Your task to perform on an android device: What's on the menu at Olive Garden? Image 0: 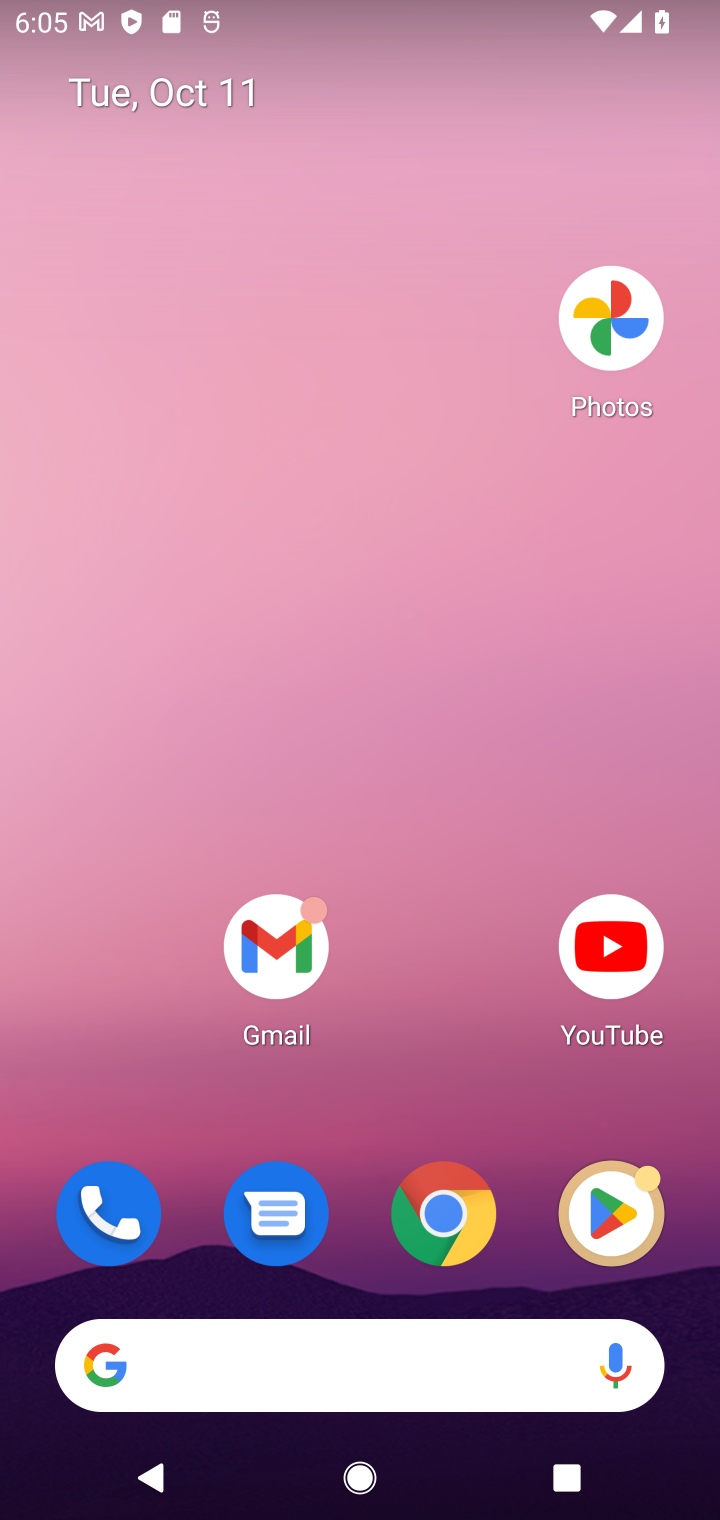
Step 0: click (454, 1240)
Your task to perform on an android device: What's on the menu at Olive Garden? Image 1: 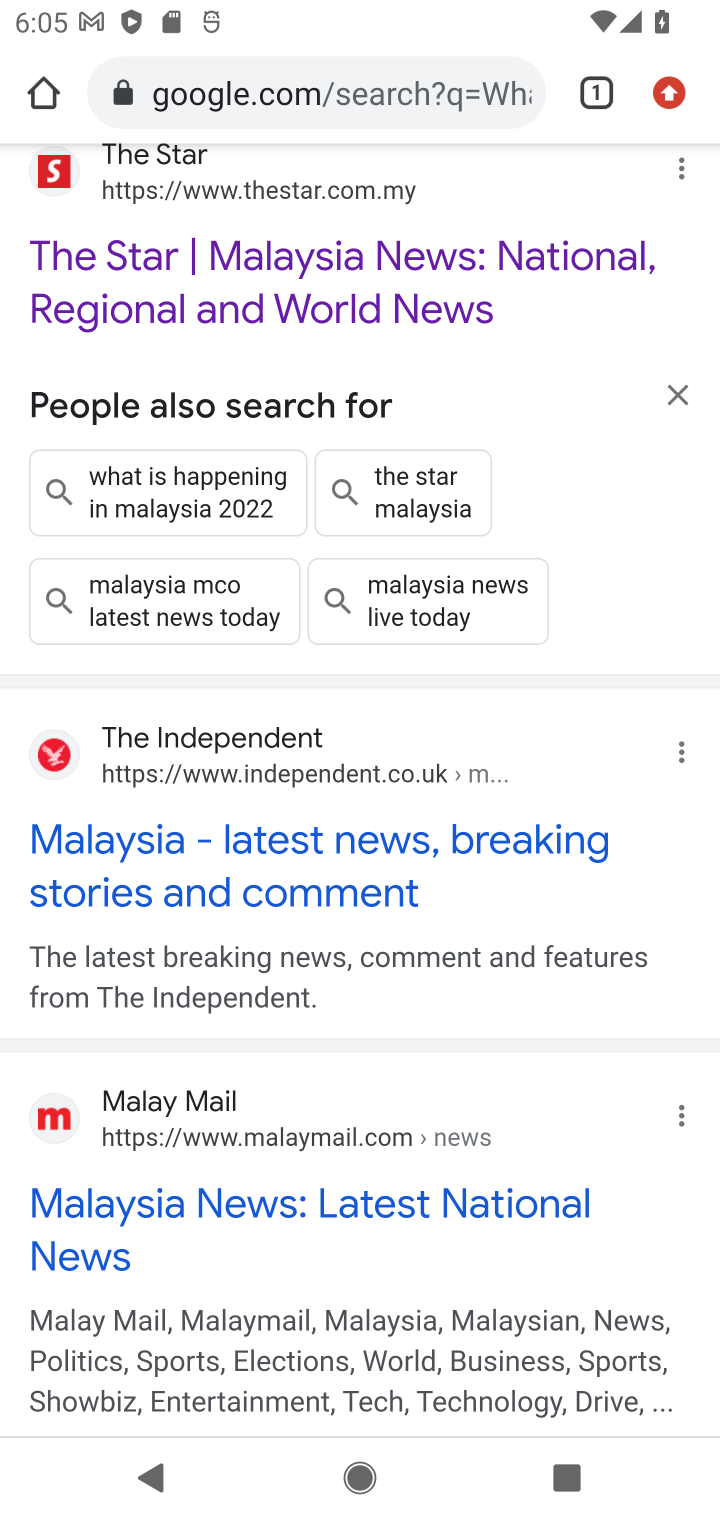
Step 1: click (316, 69)
Your task to perform on an android device: What's on the menu at Olive Garden? Image 2: 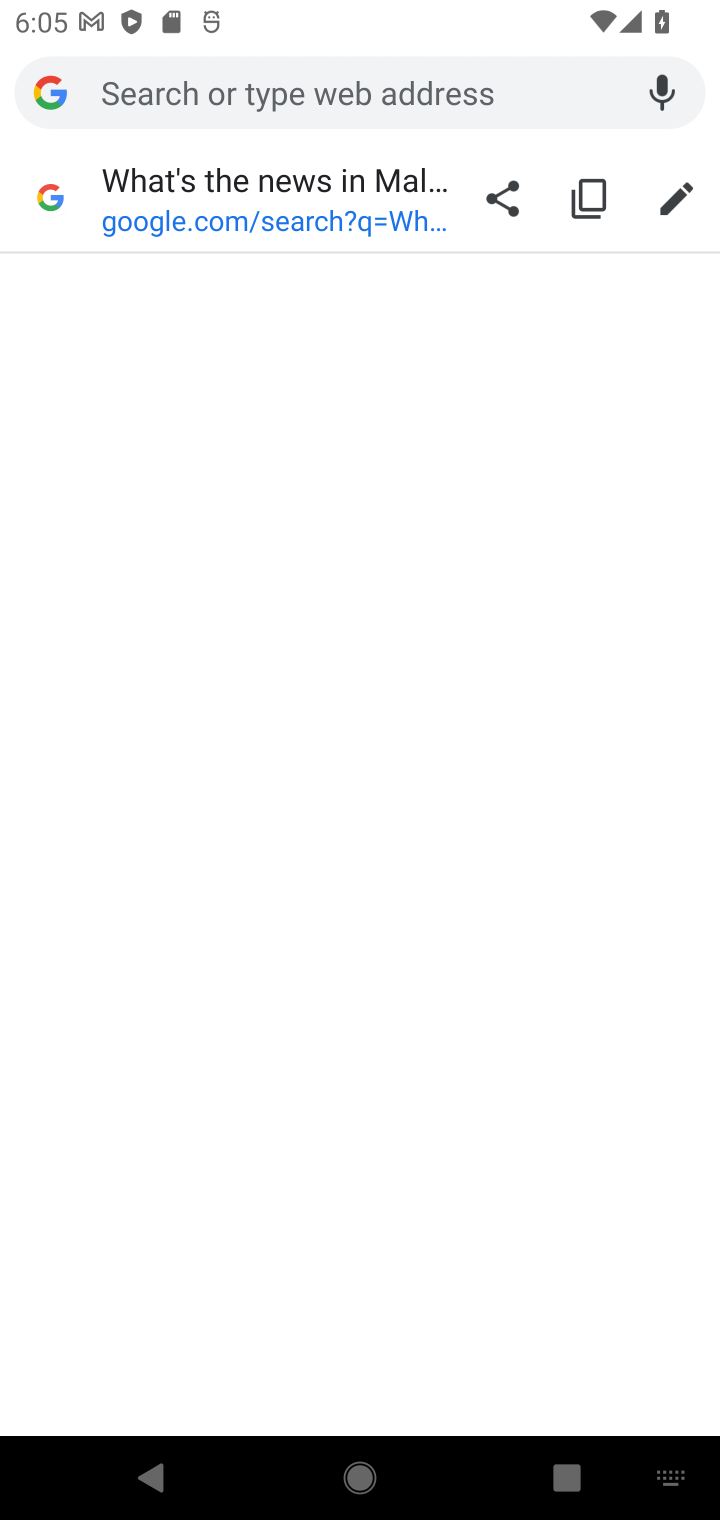
Step 2: type "What's on the menu at Olive Garden?"
Your task to perform on an android device: What's on the menu at Olive Garden? Image 3: 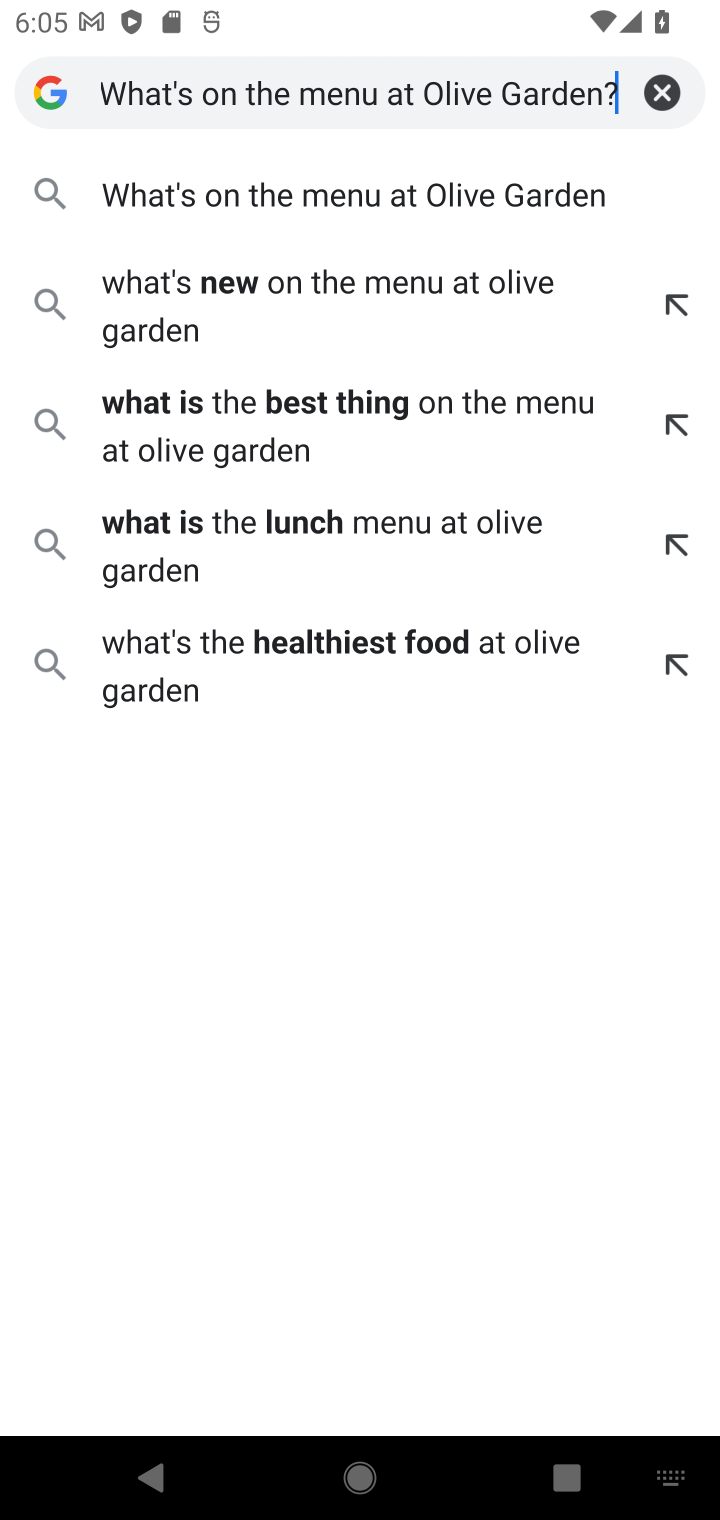
Step 3: type ""
Your task to perform on an android device: What's on the menu at Olive Garden? Image 4: 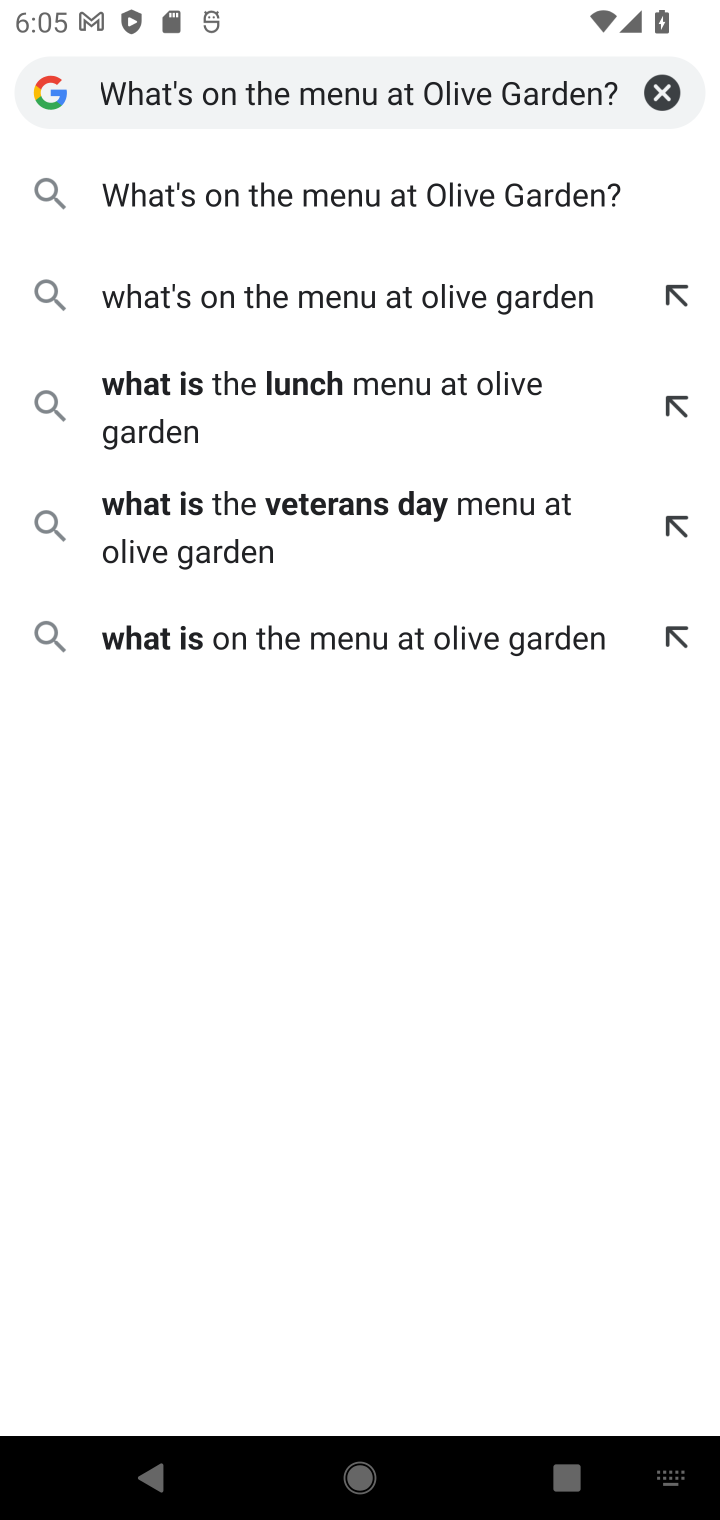
Step 4: click (566, 207)
Your task to perform on an android device: What's on the menu at Olive Garden? Image 5: 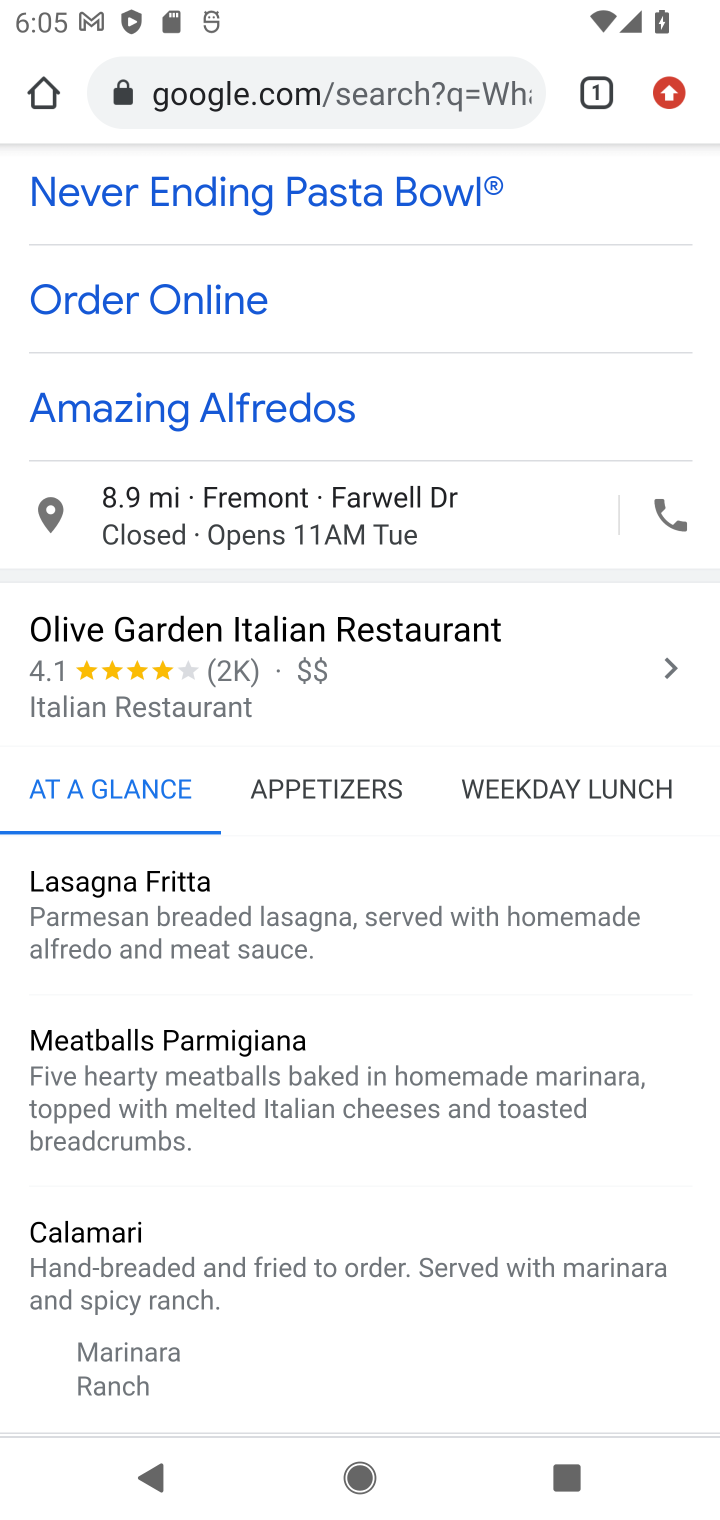
Step 5: drag from (470, 852) to (414, 376)
Your task to perform on an android device: What's on the menu at Olive Garden? Image 6: 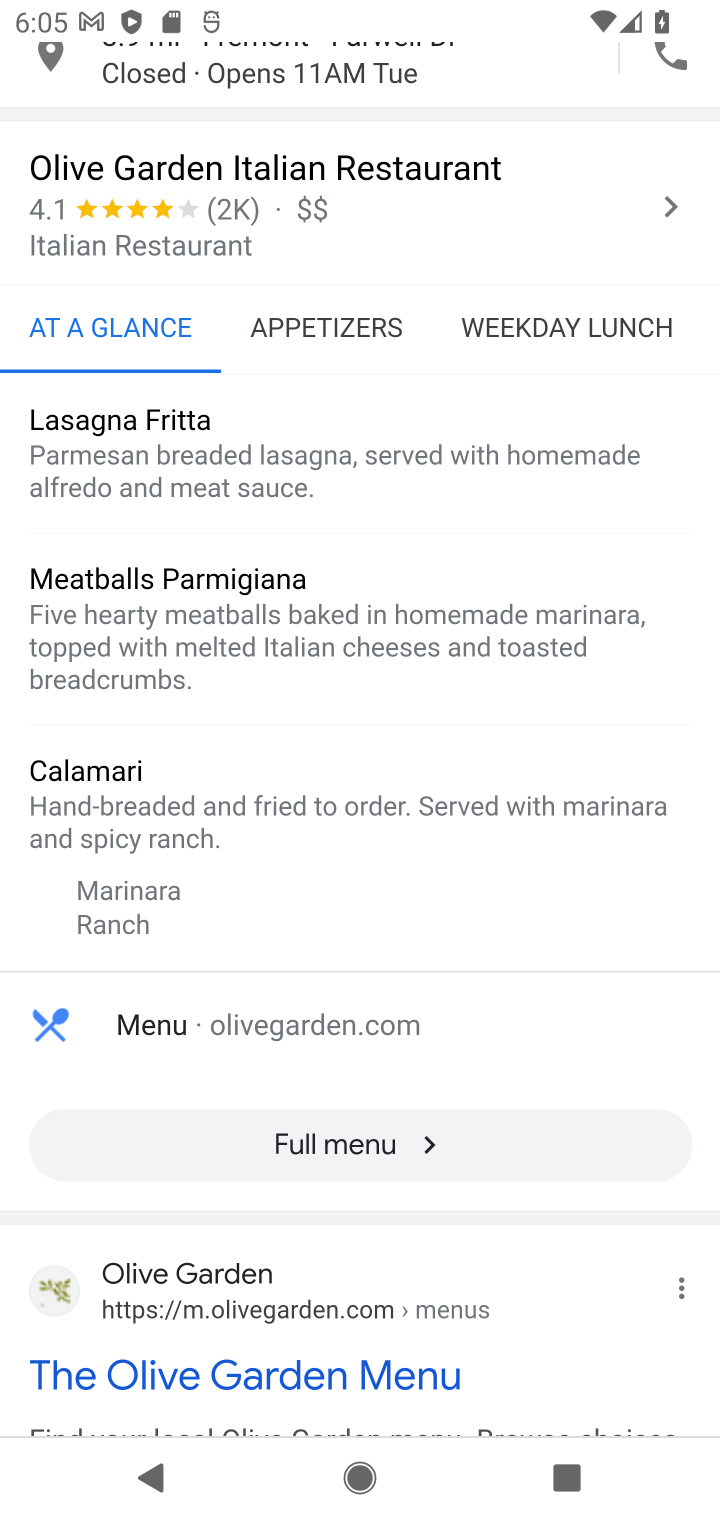
Step 6: click (229, 1352)
Your task to perform on an android device: What's on the menu at Olive Garden? Image 7: 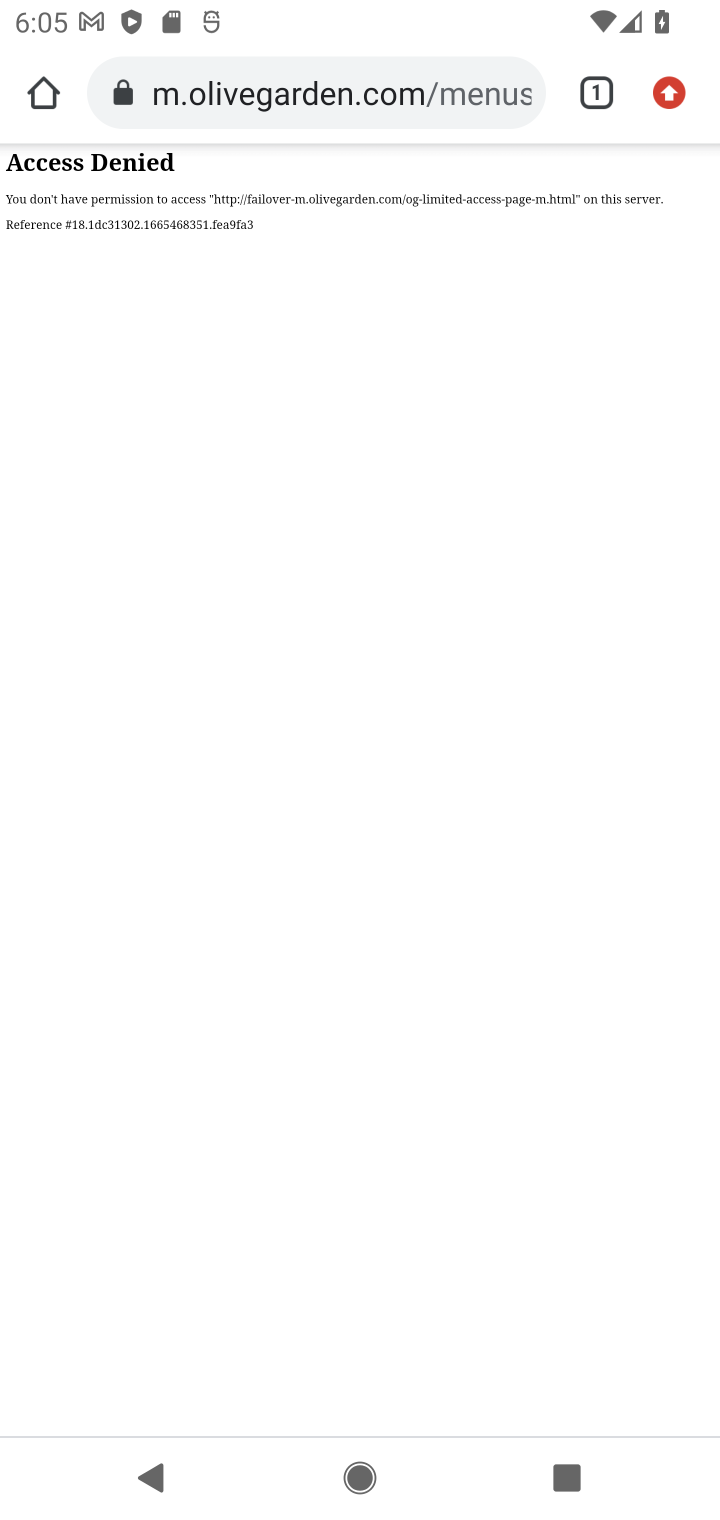
Step 7: press back button
Your task to perform on an android device: What's on the menu at Olive Garden? Image 8: 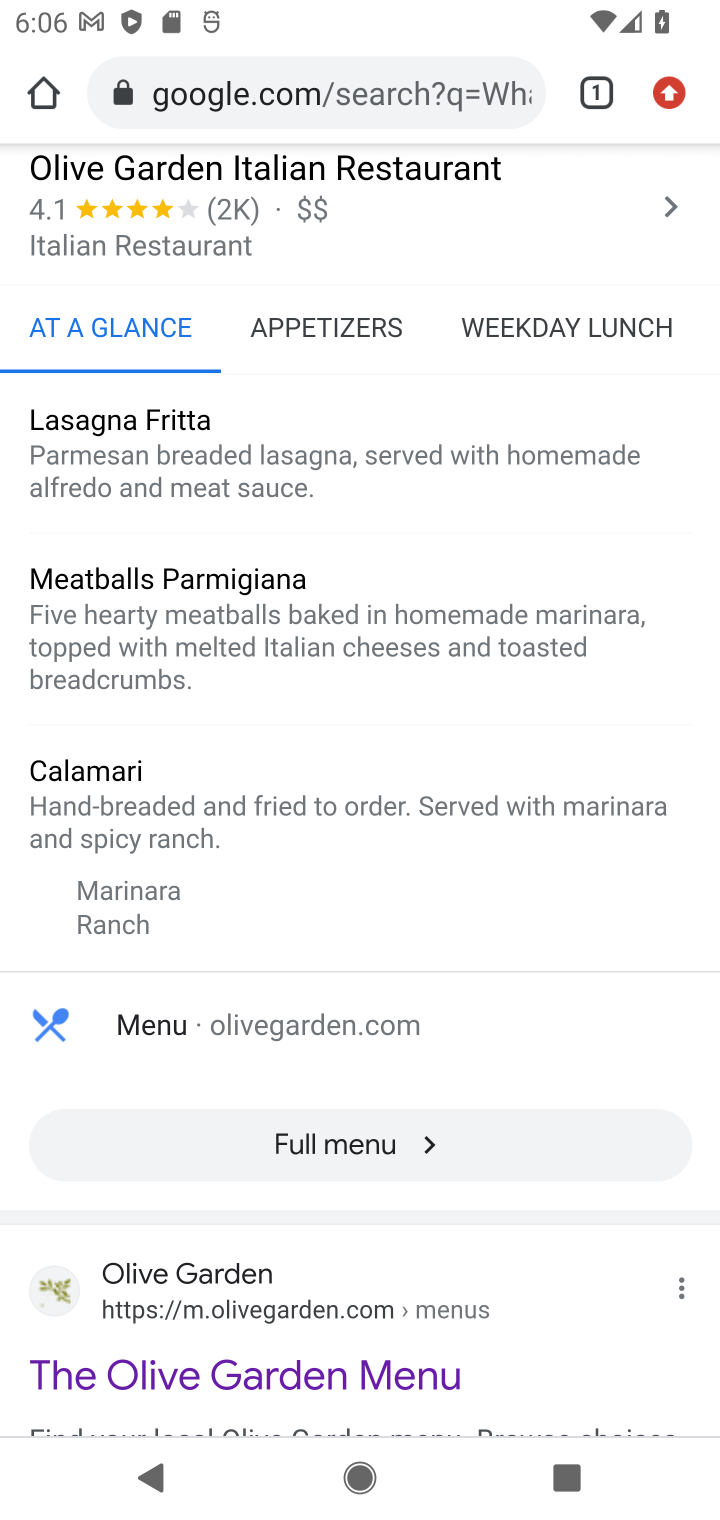
Step 8: drag from (382, 1319) to (465, 205)
Your task to perform on an android device: What's on the menu at Olive Garden? Image 9: 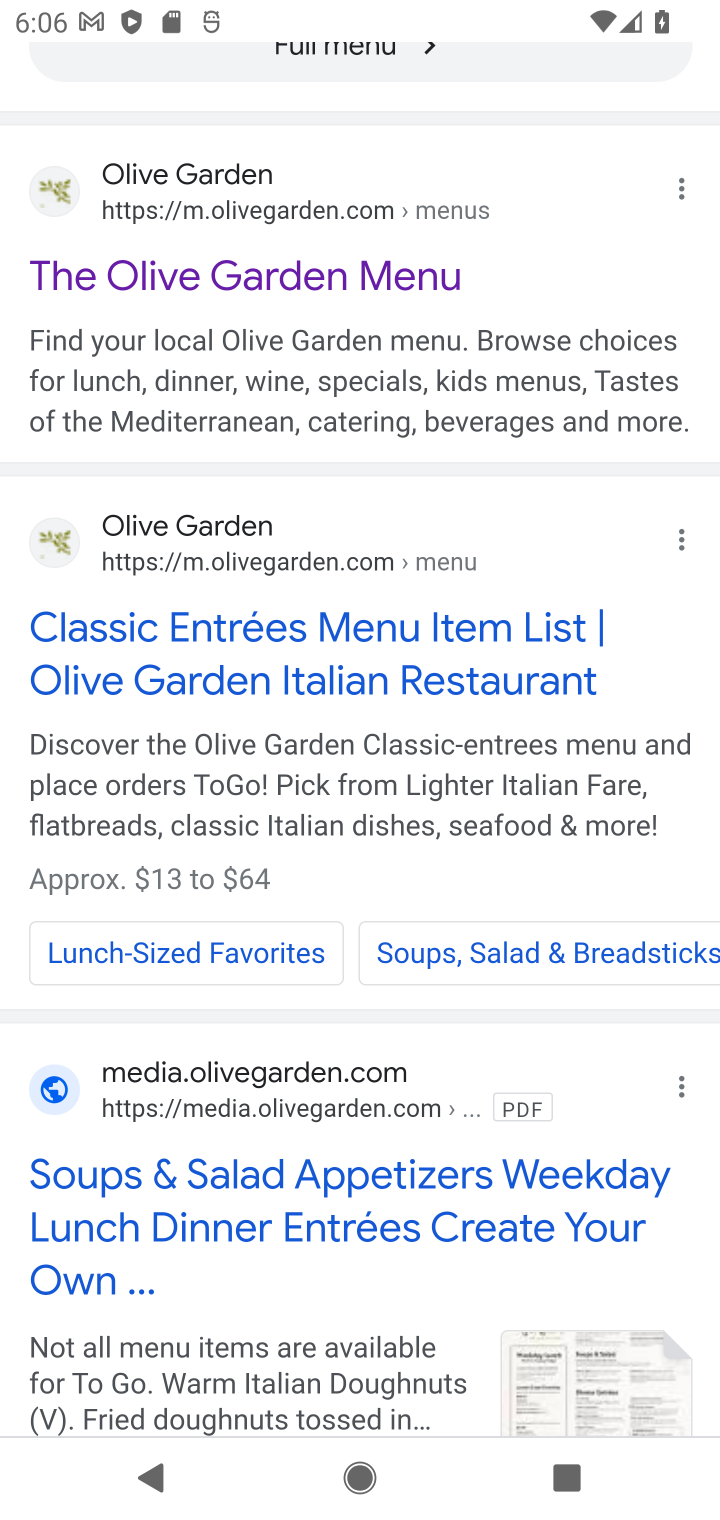
Step 9: click (145, 668)
Your task to perform on an android device: What's on the menu at Olive Garden? Image 10: 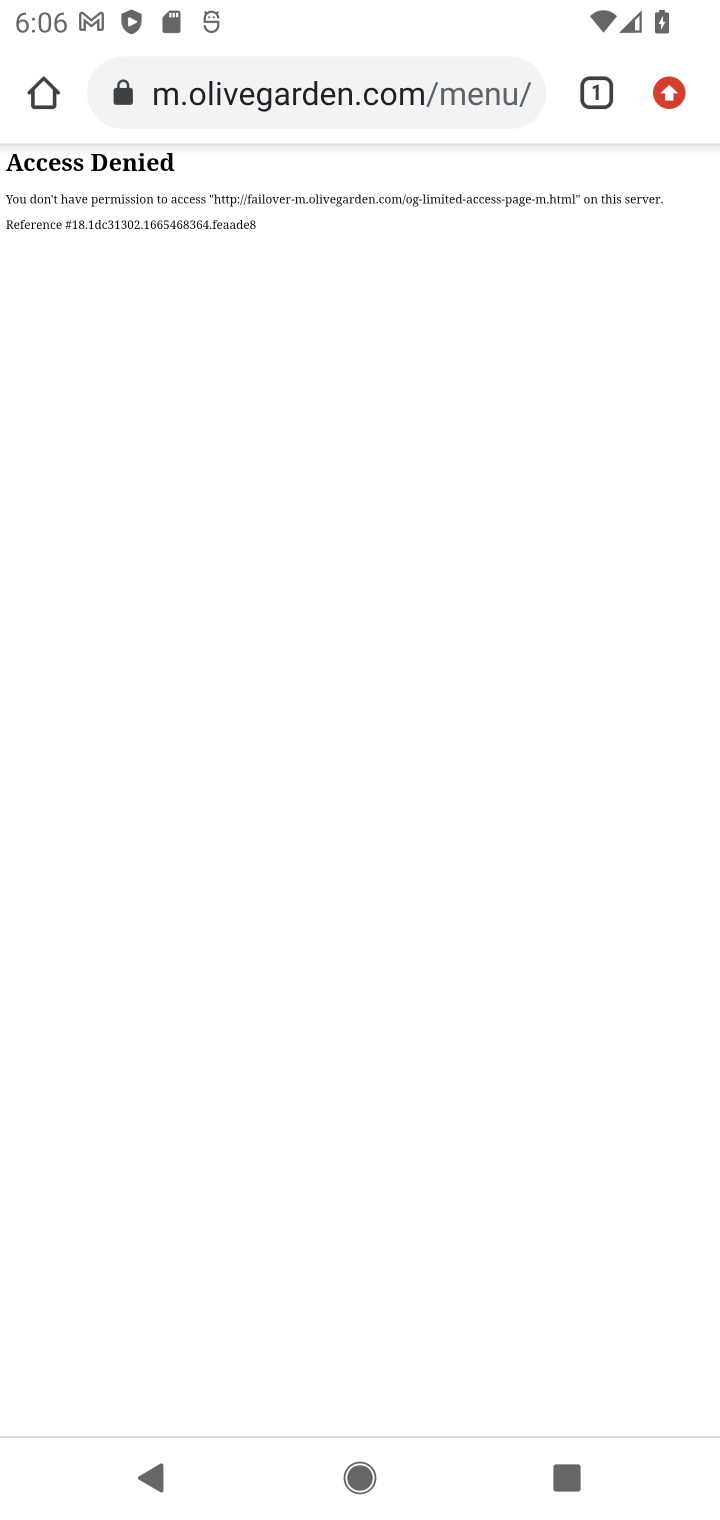
Step 10: press back button
Your task to perform on an android device: What's on the menu at Olive Garden? Image 11: 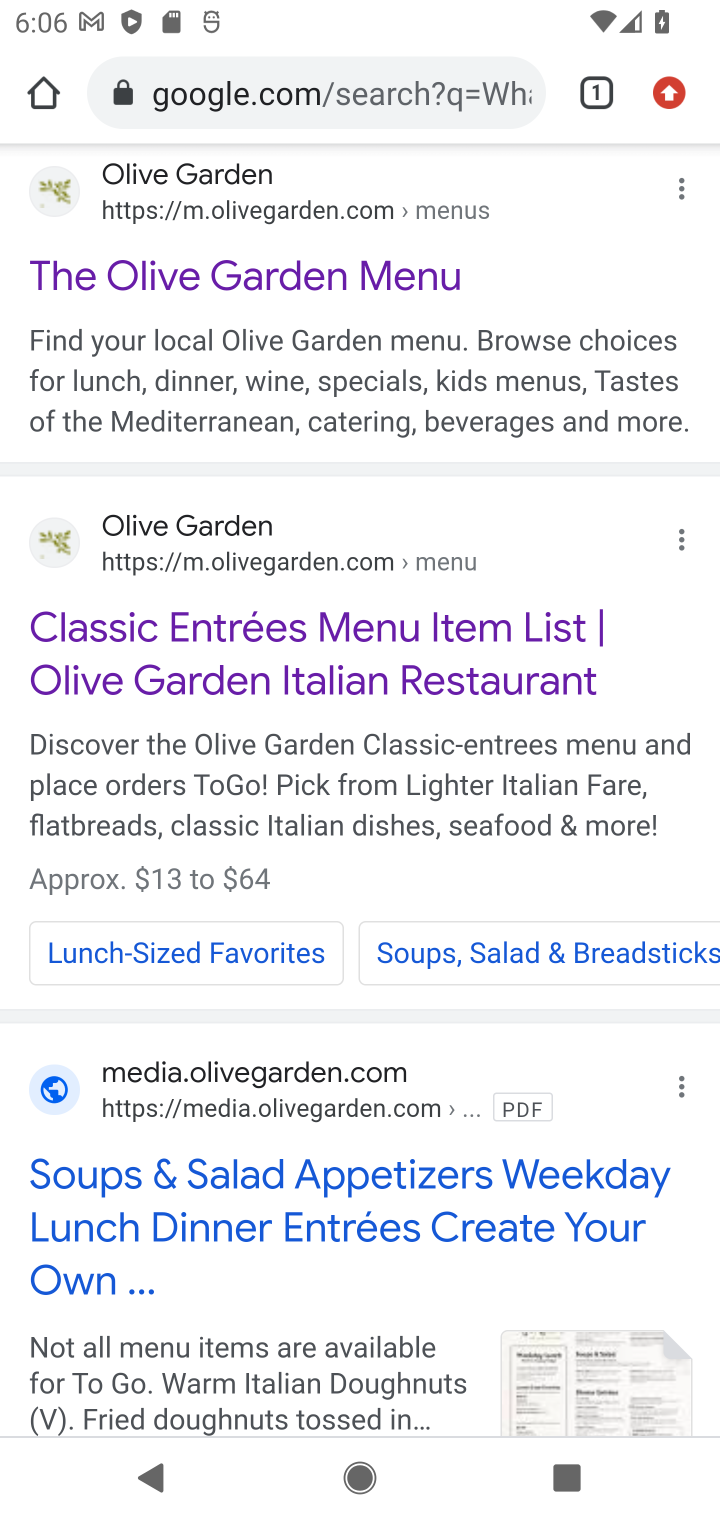
Step 11: drag from (330, 1306) to (395, 566)
Your task to perform on an android device: What's on the menu at Olive Garden? Image 12: 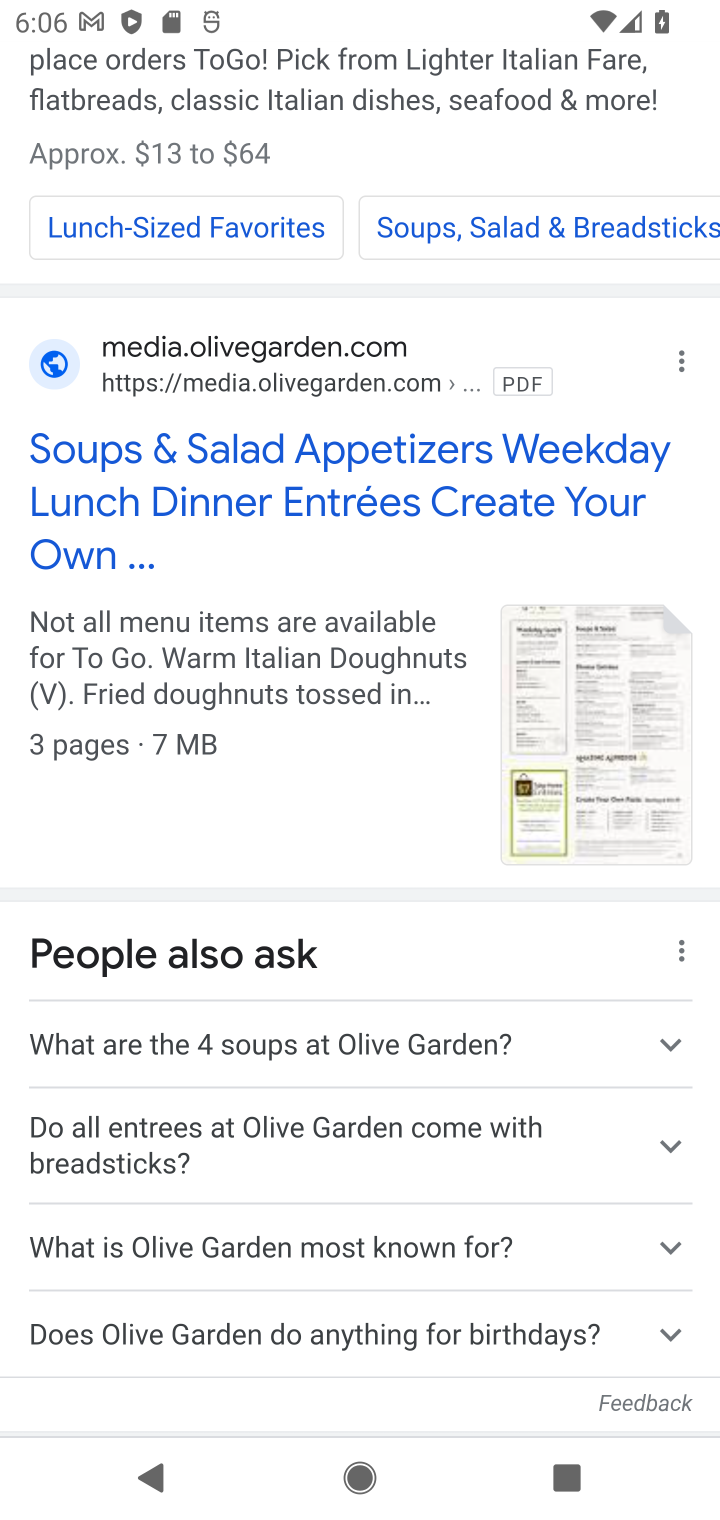
Step 12: drag from (383, 310) to (412, 1159)
Your task to perform on an android device: What's on the menu at Olive Garden? Image 13: 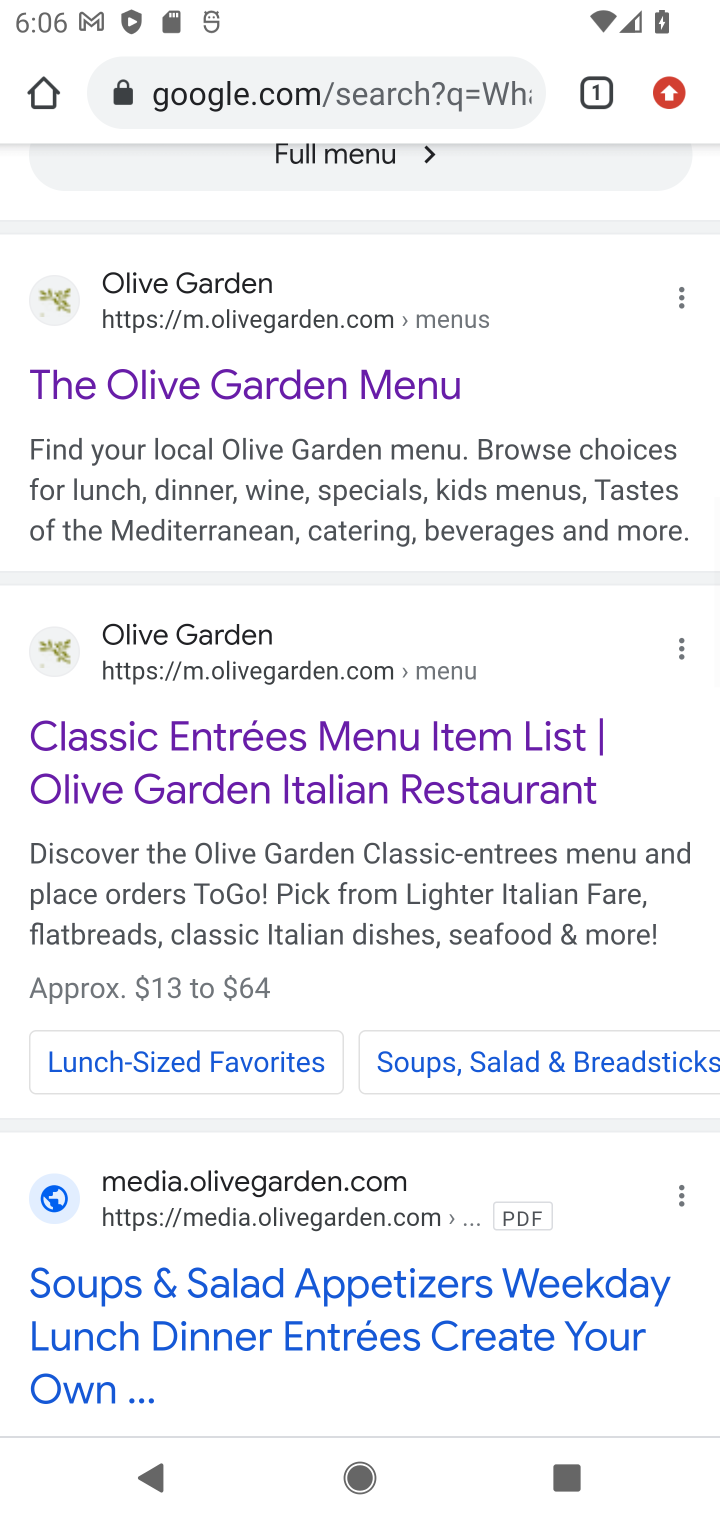
Step 13: drag from (330, 274) to (356, 1147)
Your task to perform on an android device: What's on the menu at Olive Garden? Image 14: 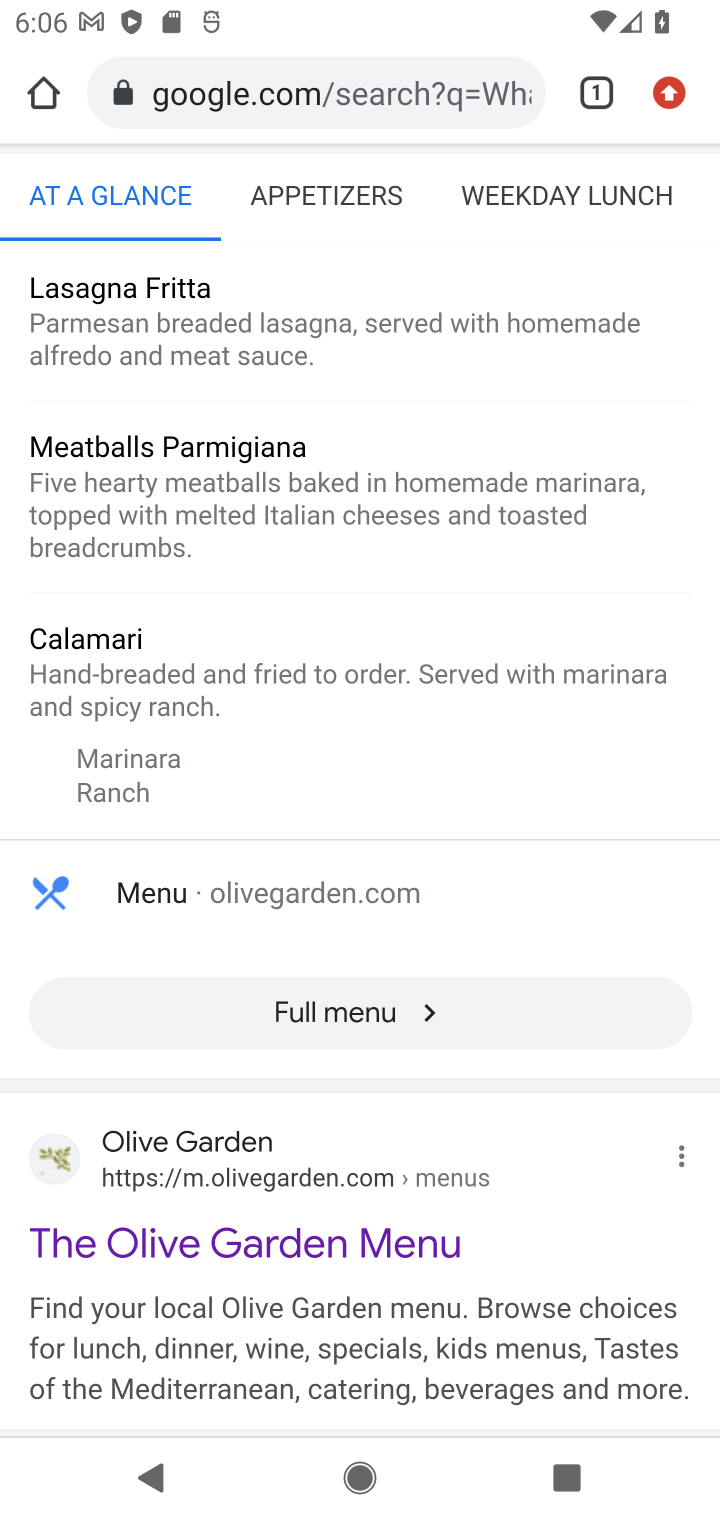
Step 14: click (257, 1238)
Your task to perform on an android device: What's on the menu at Olive Garden? Image 15: 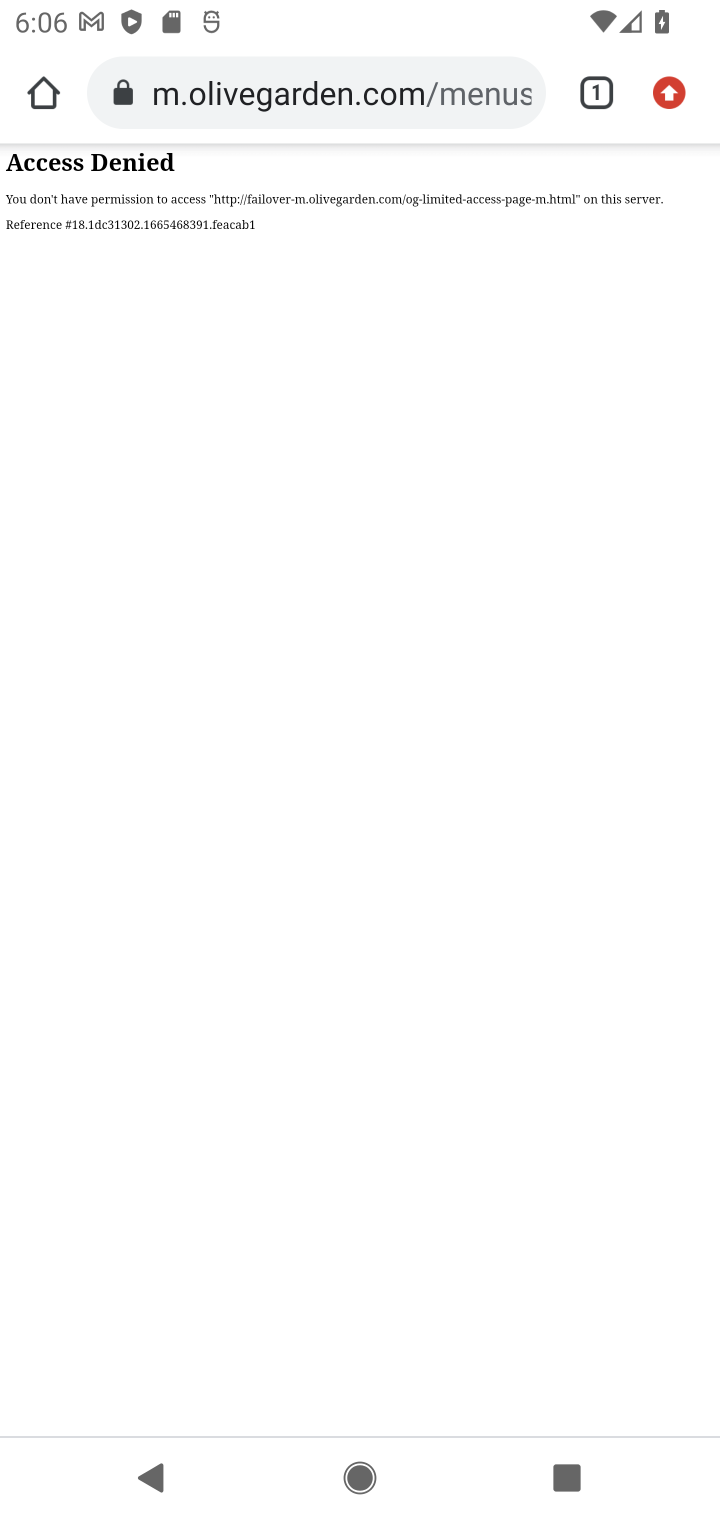
Step 15: drag from (257, 1240) to (333, 539)
Your task to perform on an android device: What's on the menu at Olive Garden? Image 16: 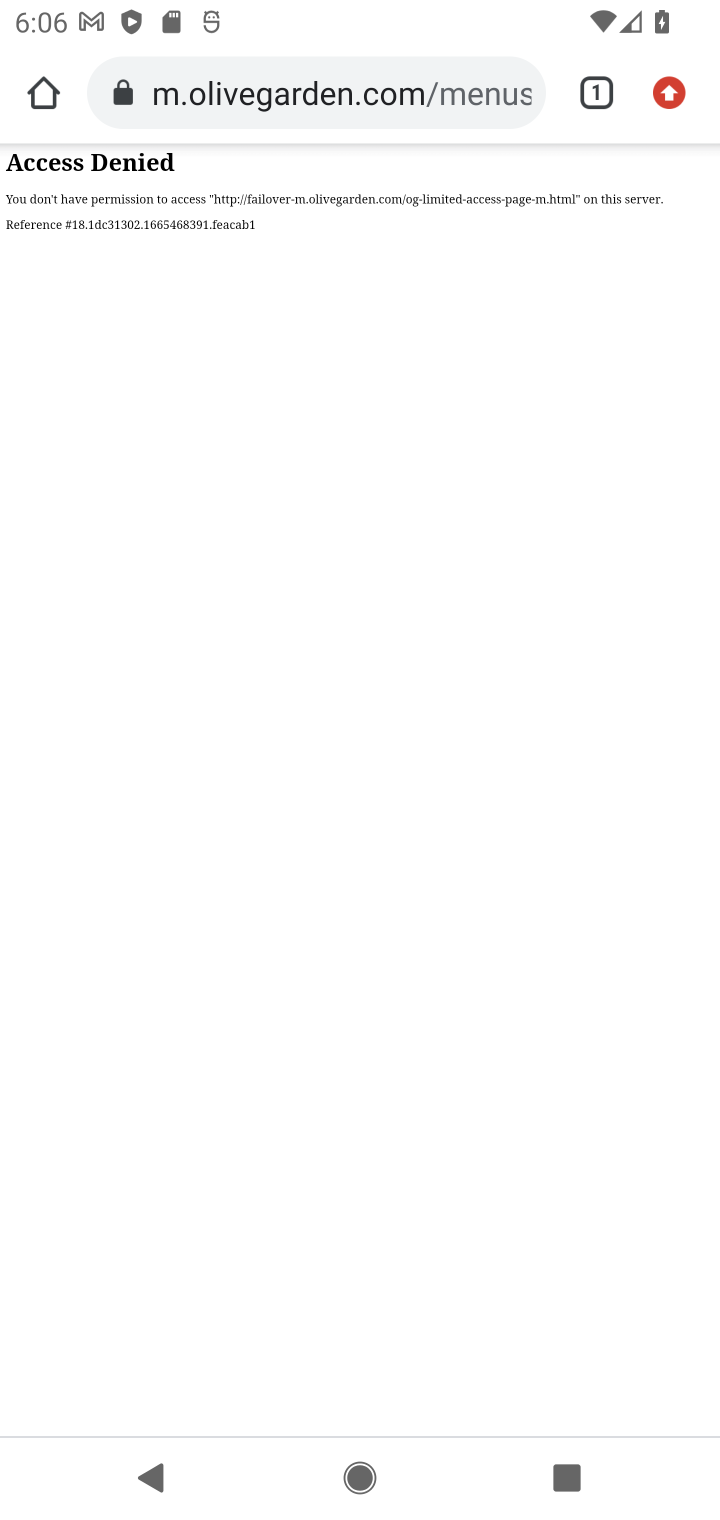
Step 16: click (402, 653)
Your task to perform on an android device: What's on the menu at Olive Garden? Image 17: 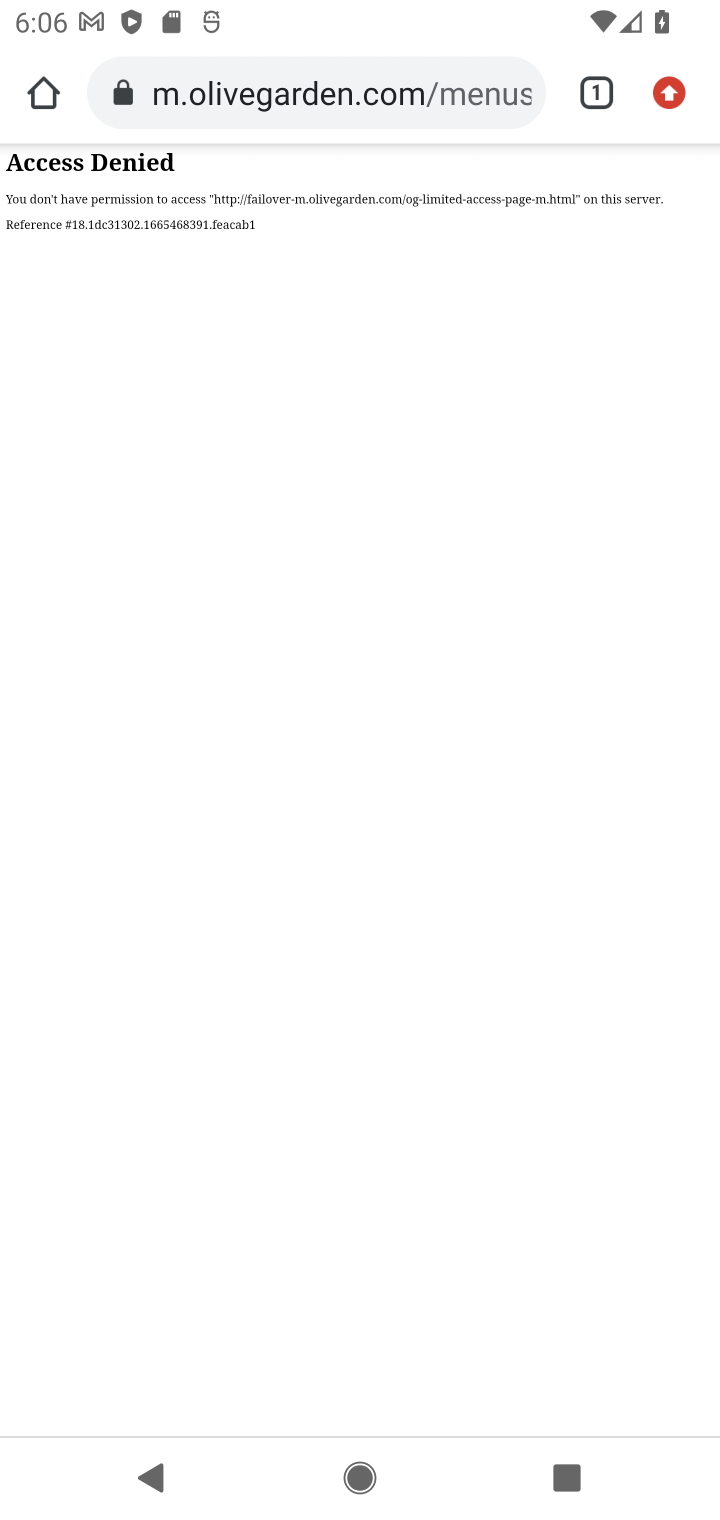
Step 17: task complete